Your task to perform on an android device: delete browsing data in the chrome app Image 0: 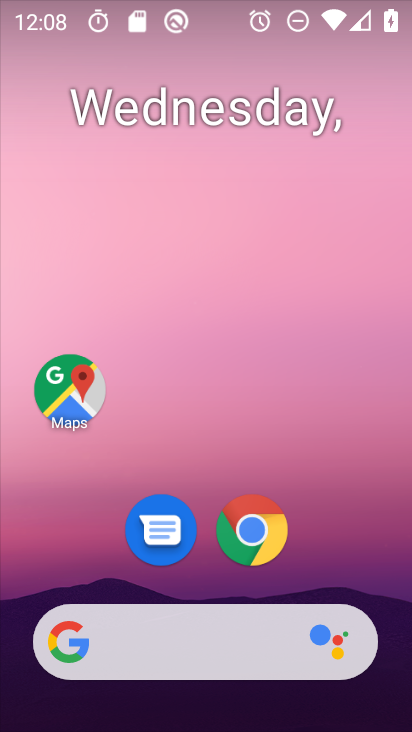
Step 0: click (247, 531)
Your task to perform on an android device: delete browsing data in the chrome app Image 1: 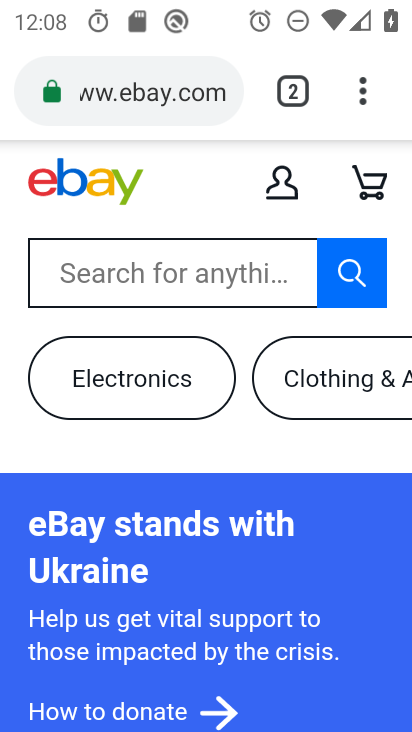
Step 1: click (364, 88)
Your task to perform on an android device: delete browsing data in the chrome app Image 2: 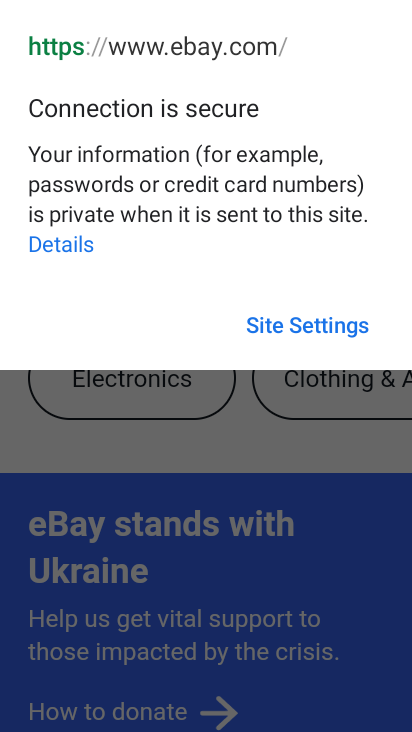
Step 2: click (262, 525)
Your task to perform on an android device: delete browsing data in the chrome app Image 3: 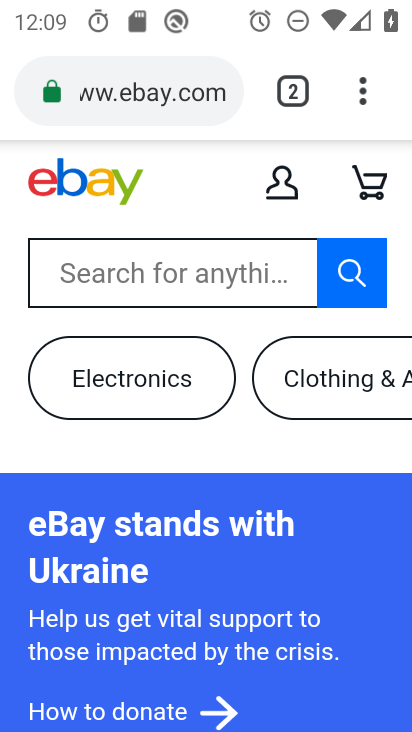
Step 3: drag from (297, 525) to (344, 196)
Your task to perform on an android device: delete browsing data in the chrome app Image 4: 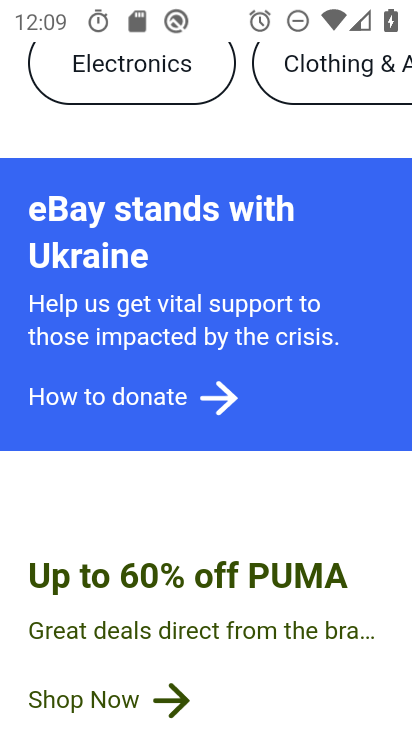
Step 4: drag from (320, 262) to (327, 674)
Your task to perform on an android device: delete browsing data in the chrome app Image 5: 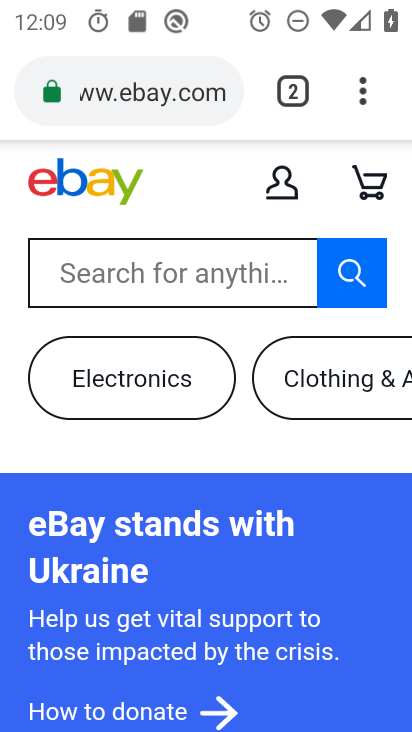
Step 5: drag from (366, 86) to (108, 521)
Your task to perform on an android device: delete browsing data in the chrome app Image 6: 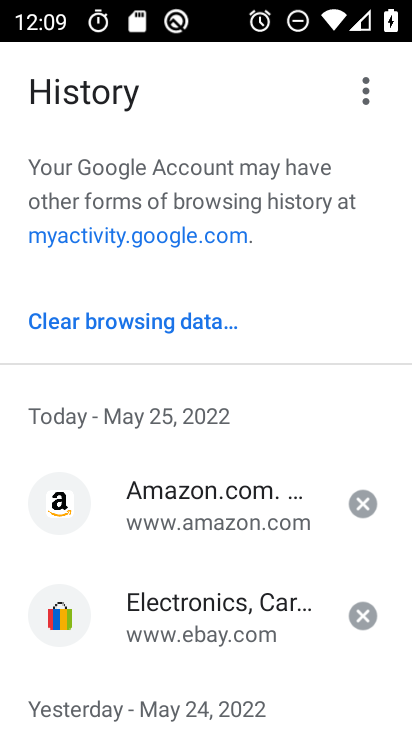
Step 6: click (169, 332)
Your task to perform on an android device: delete browsing data in the chrome app Image 7: 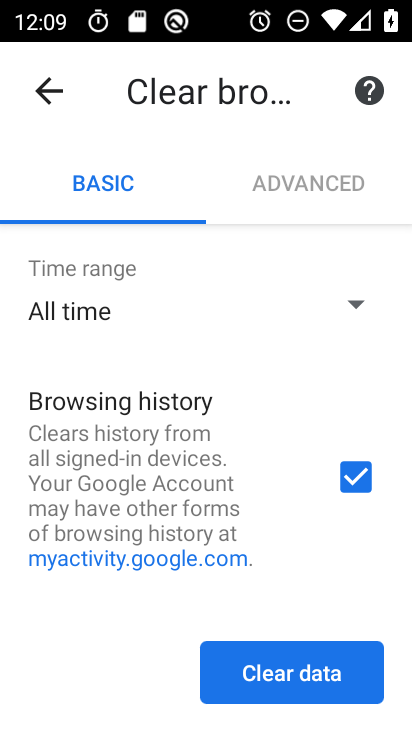
Step 7: drag from (197, 522) to (245, 104)
Your task to perform on an android device: delete browsing data in the chrome app Image 8: 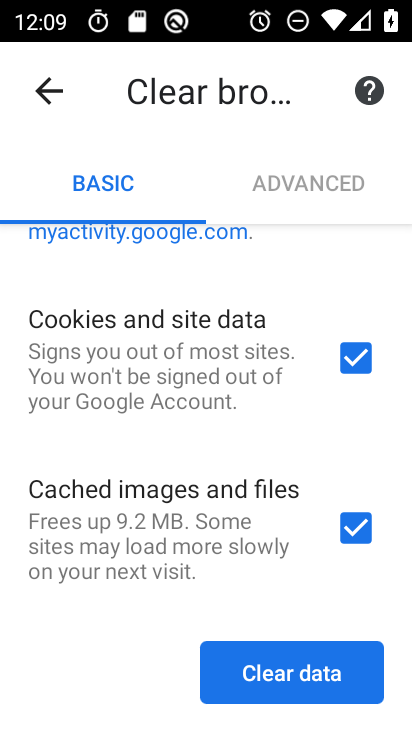
Step 8: click (289, 669)
Your task to perform on an android device: delete browsing data in the chrome app Image 9: 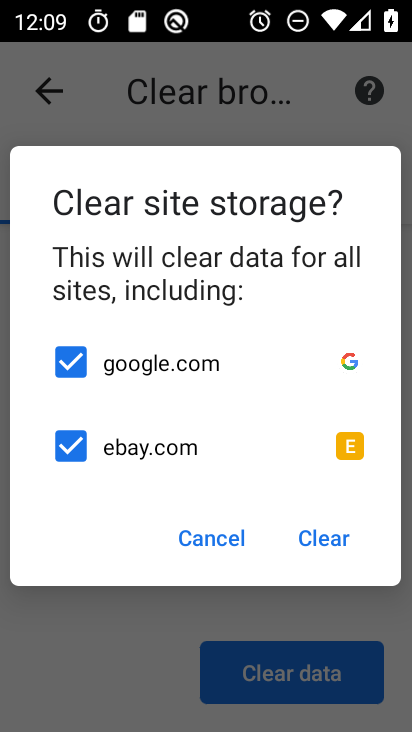
Step 9: click (327, 532)
Your task to perform on an android device: delete browsing data in the chrome app Image 10: 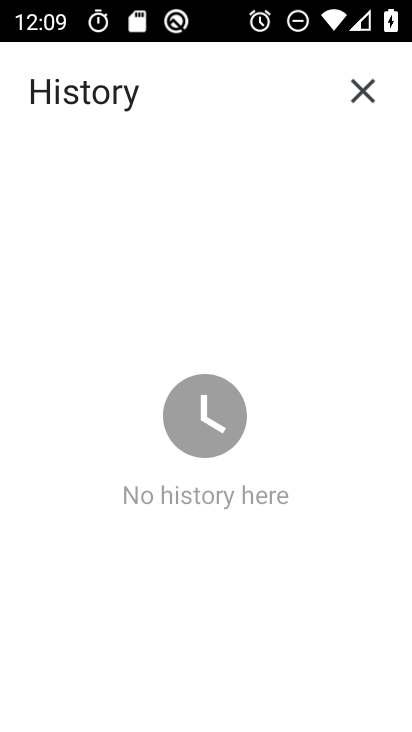
Step 10: task complete